Your task to perform on an android device: check google app version Image 0: 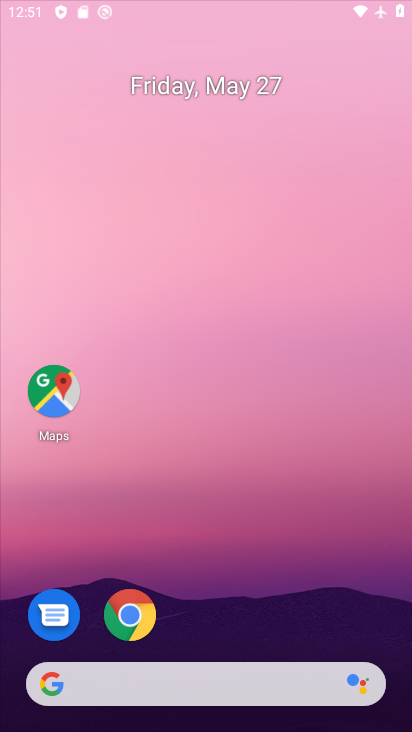
Step 0: press home button
Your task to perform on an android device: check google app version Image 1: 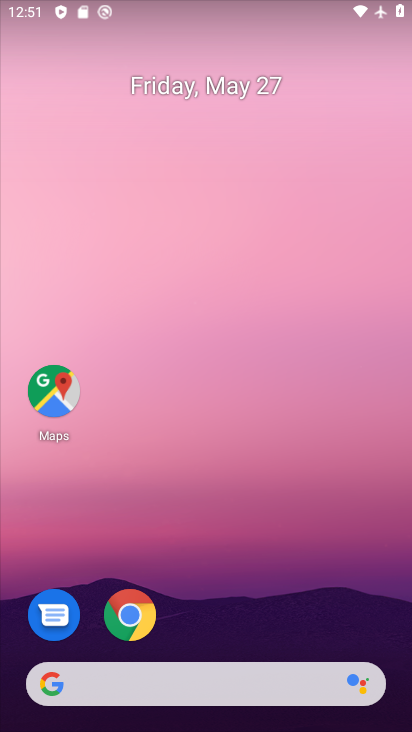
Step 1: drag from (263, 623) to (313, 165)
Your task to perform on an android device: check google app version Image 2: 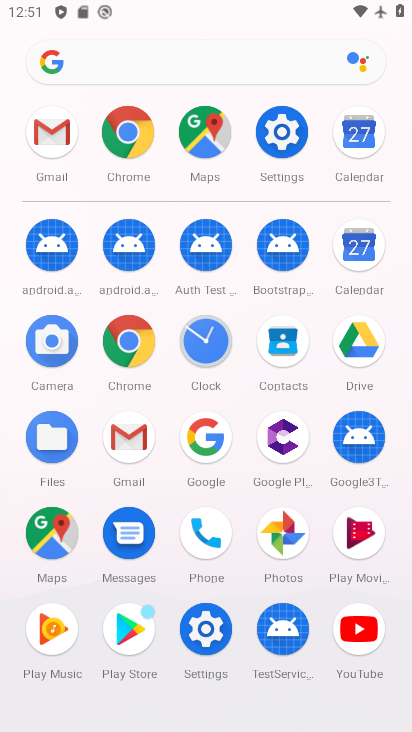
Step 2: drag from (396, 498) to (395, 123)
Your task to perform on an android device: check google app version Image 3: 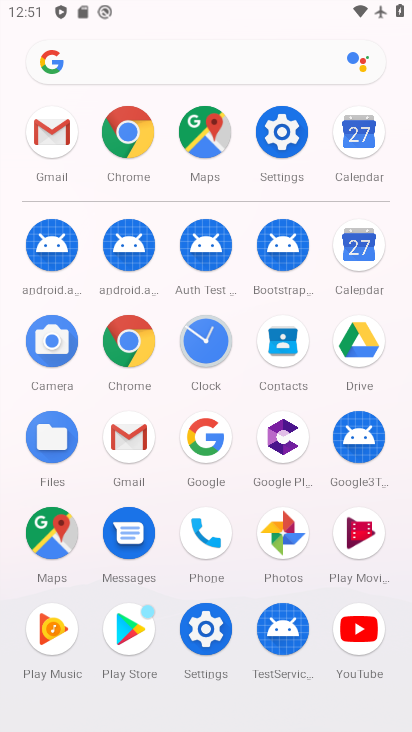
Step 3: click (206, 439)
Your task to perform on an android device: check google app version Image 4: 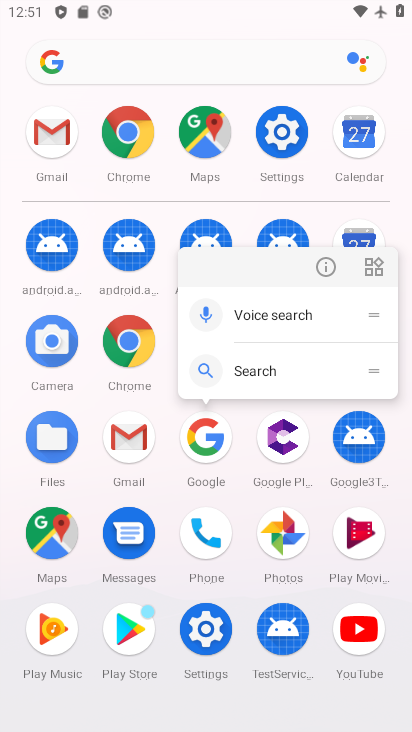
Step 4: click (328, 262)
Your task to perform on an android device: check google app version Image 5: 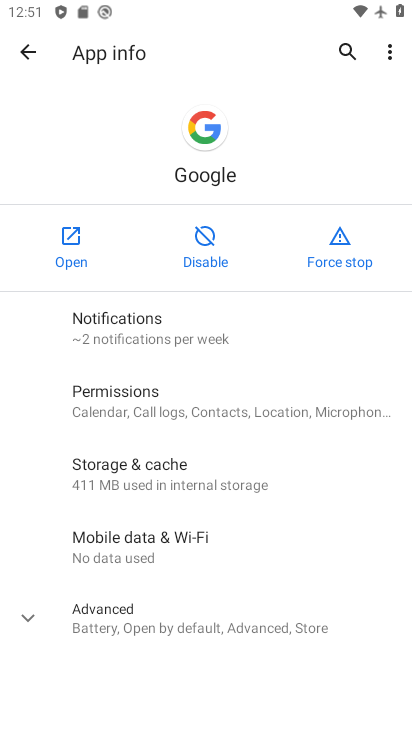
Step 5: click (122, 610)
Your task to perform on an android device: check google app version Image 6: 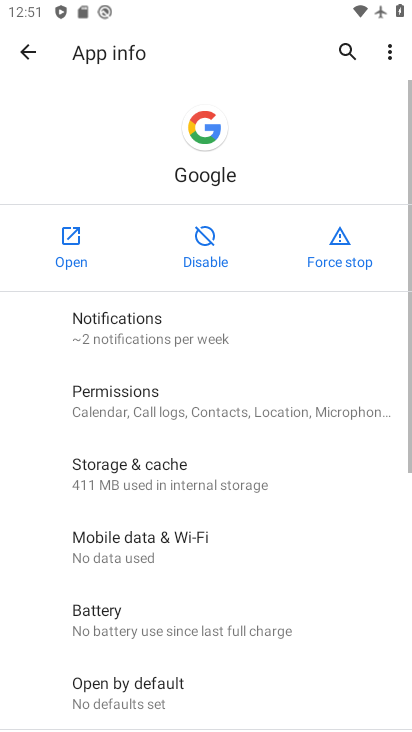
Step 6: task complete